Your task to perform on an android device: What's on my calendar today? Image 0: 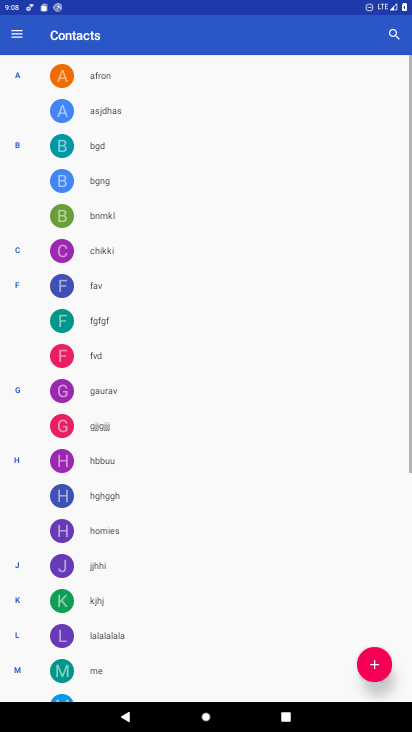
Step 0: press home button
Your task to perform on an android device: What's on my calendar today? Image 1: 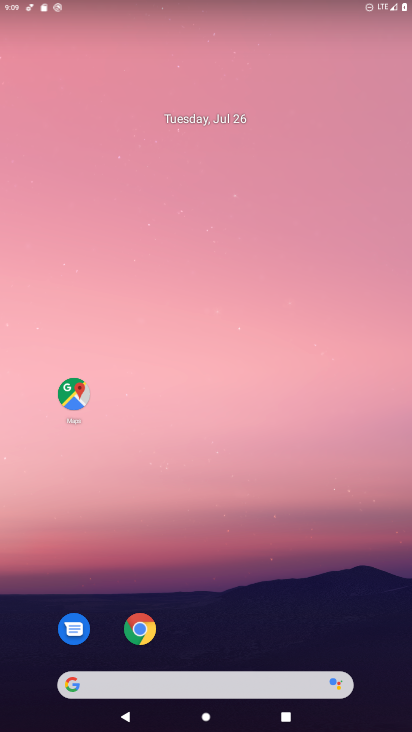
Step 1: drag from (306, 604) to (259, 184)
Your task to perform on an android device: What's on my calendar today? Image 2: 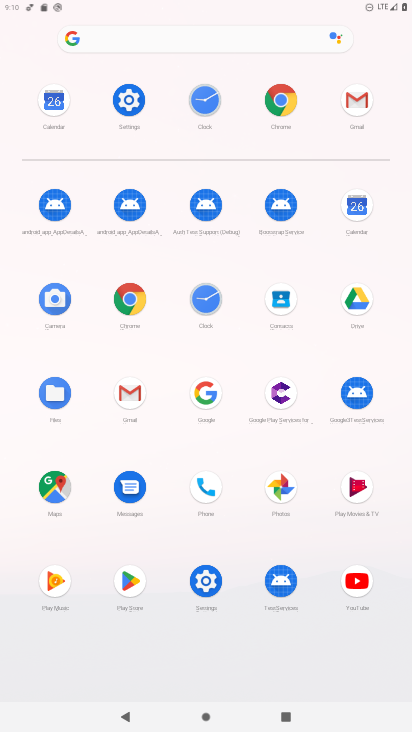
Step 2: click (351, 222)
Your task to perform on an android device: What's on my calendar today? Image 3: 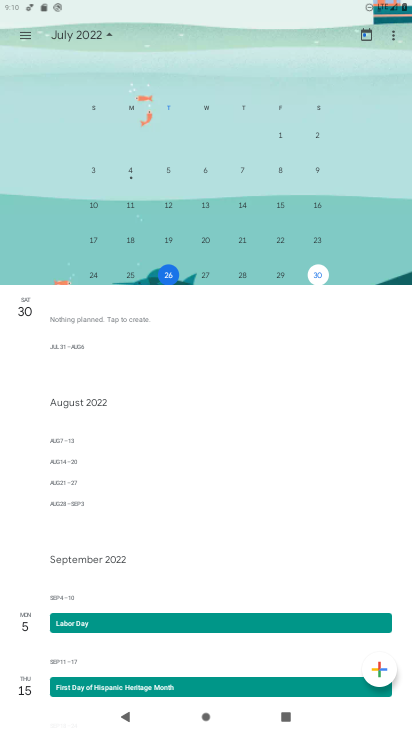
Step 3: click (208, 270)
Your task to perform on an android device: What's on my calendar today? Image 4: 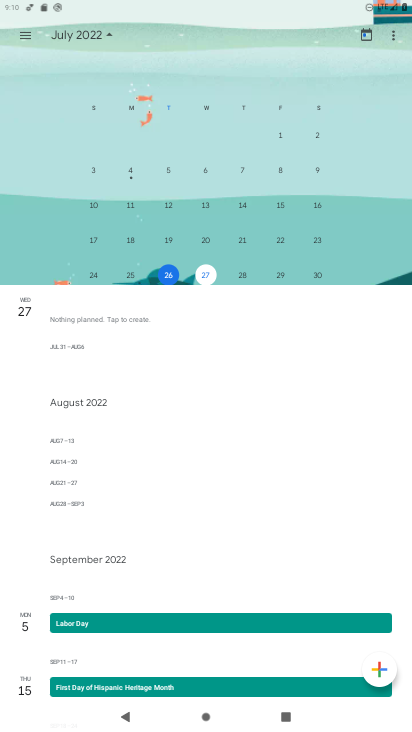
Step 4: task complete